Your task to perform on an android device: Search for pizza restaurants on Maps Image 0: 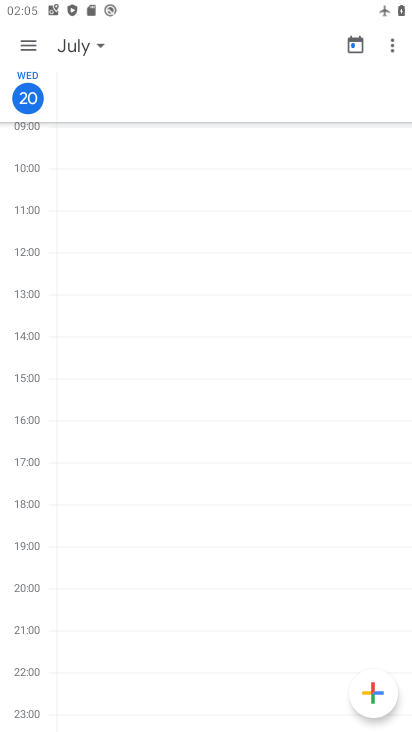
Step 0: press home button
Your task to perform on an android device: Search for pizza restaurants on Maps Image 1: 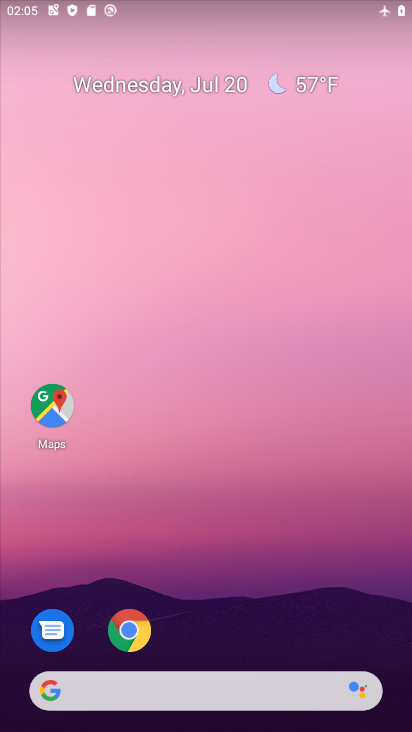
Step 1: drag from (248, 617) to (207, 92)
Your task to perform on an android device: Search for pizza restaurants on Maps Image 2: 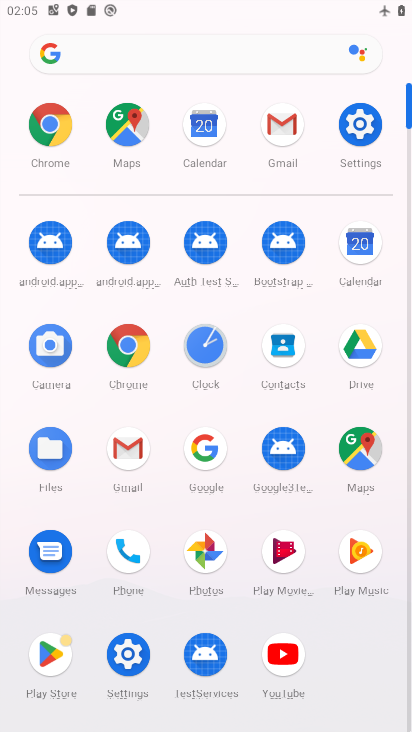
Step 2: click (359, 454)
Your task to perform on an android device: Search for pizza restaurants on Maps Image 3: 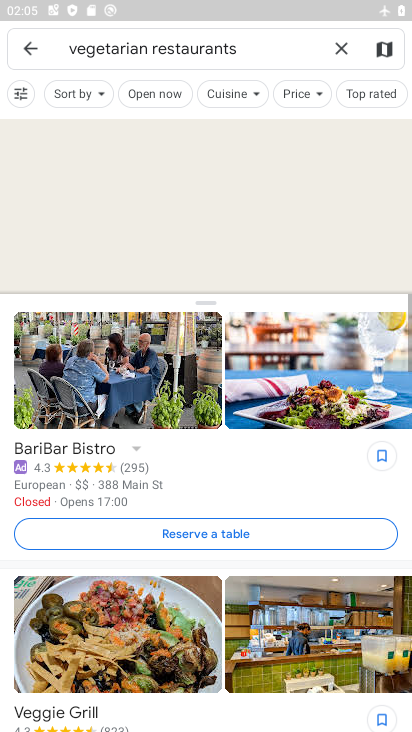
Step 3: click (338, 51)
Your task to perform on an android device: Search for pizza restaurants on Maps Image 4: 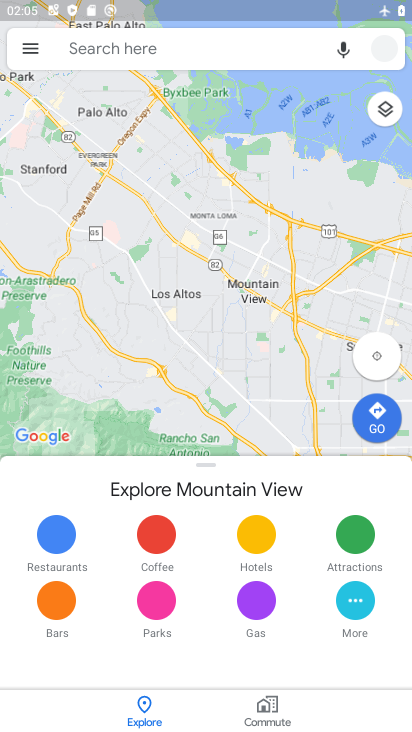
Step 4: click (269, 48)
Your task to perform on an android device: Search for pizza restaurants on Maps Image 5: 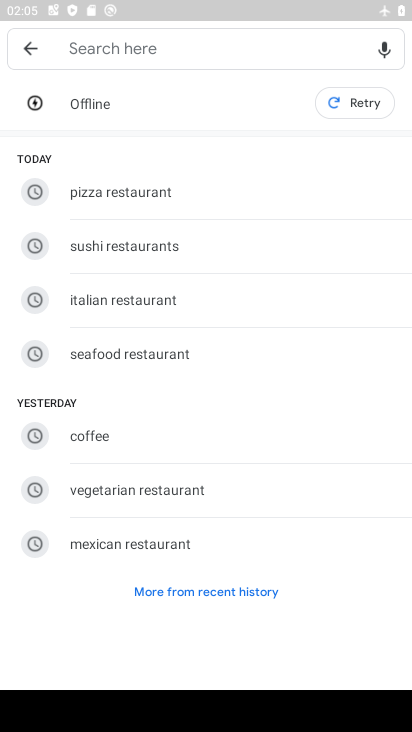
Step 5: type "pizza restaurants"
Your task to perform on an android device: Search for pizza restaurants on Maps Image 6: 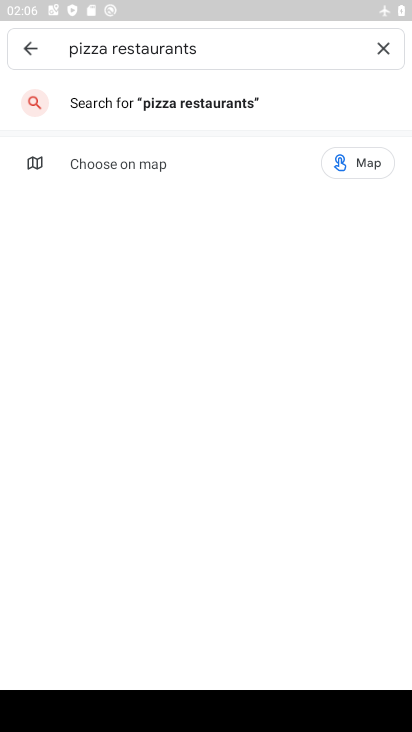
Step 6: press enter
Your task to perform on an android device: Search for pizza restaurants on Maps Image 7: 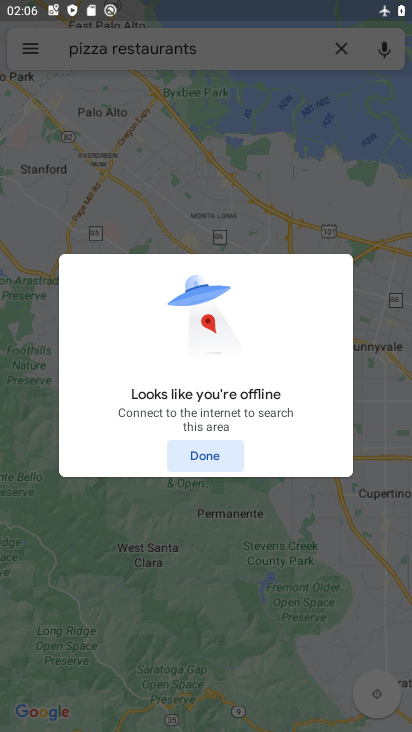
Step 7: task complete